Your task to perform on an android device: snooze an email in the gmail app Image 0: 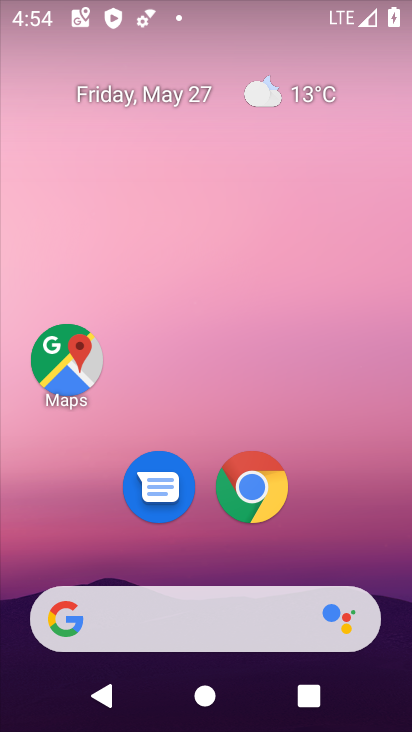
Step 0: drag from (367, 496) to (364, 117)
Your task to perform on an android device: snooze an email in the gmail app Image 1: 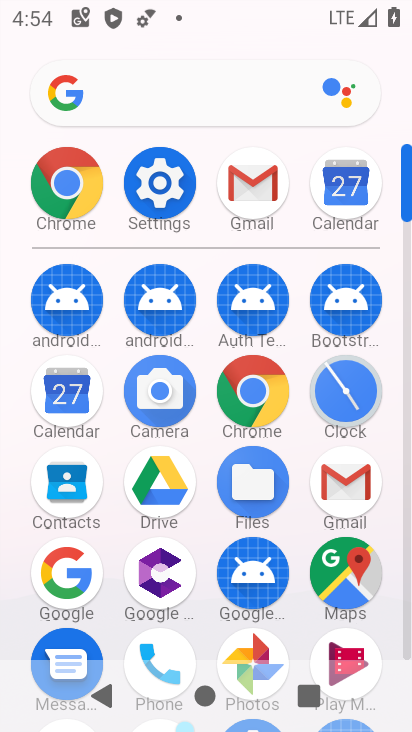
Step 1: click (236, 188)
Your task to perform on an android device: snooze an email in the gmail app Image 2: 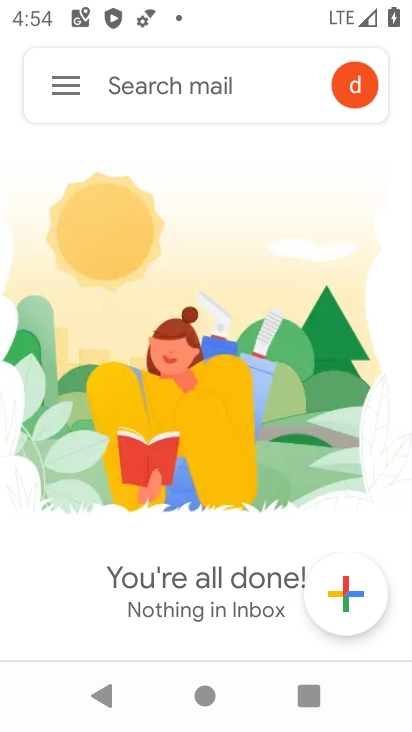
Step 2: click (63, 84)
Your task to perform on an android device: snooze an email in the gmail app Image 3: 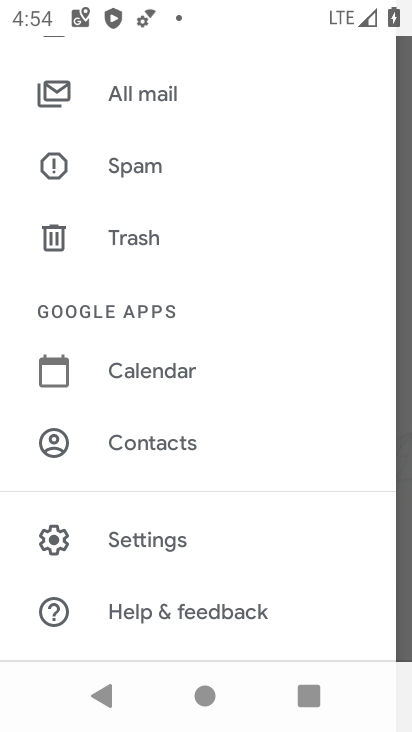
Step 3: drag from (189, 244) to (223, 590)
Your task to perform on an android device: snooze an email in the gmail app Image 4: 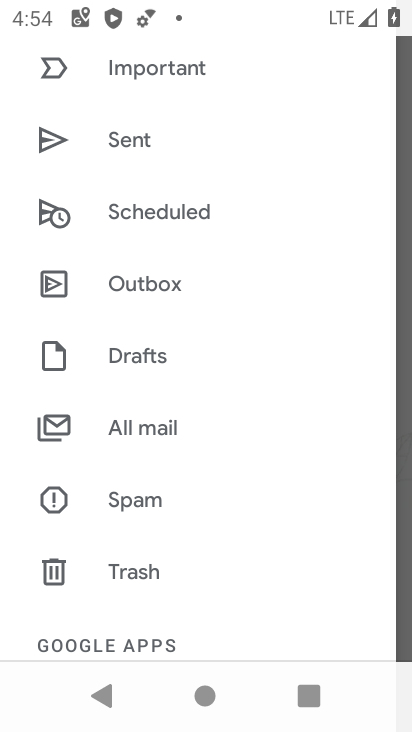
Step 4: drag from (183, 320) to (181, 581)
Your task to perform on an android device: snooze an email in the gmail app Image 5: 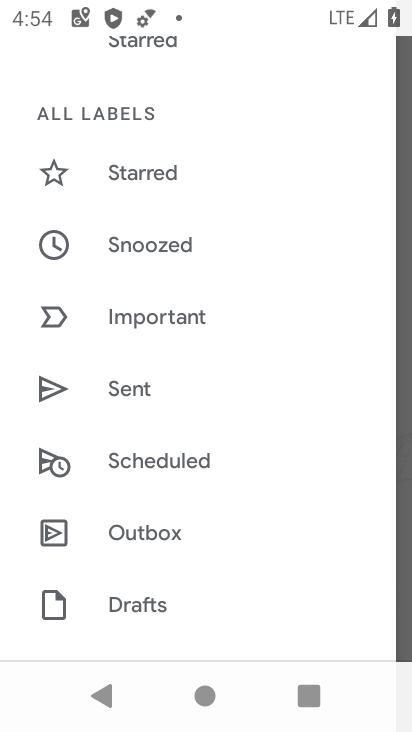
Step 5: drag from (152, 588) to (221, 299)
Your task to perform on an android device: snooze an email in the gmail app Image 6: 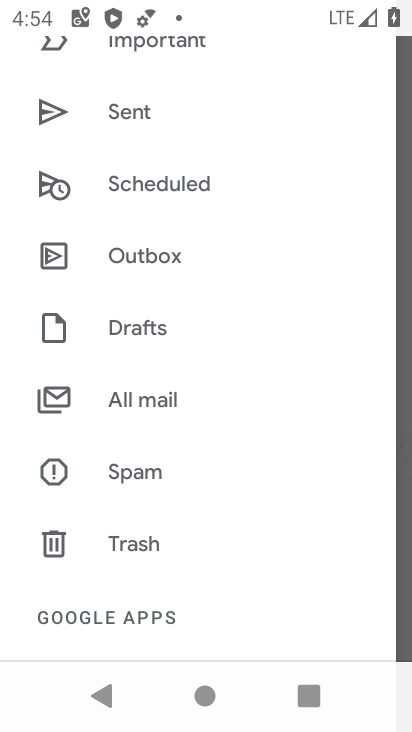
Step 6: click (160, 397)
Your task to perform on an android device: snooze an email in the gmail app Image 7: 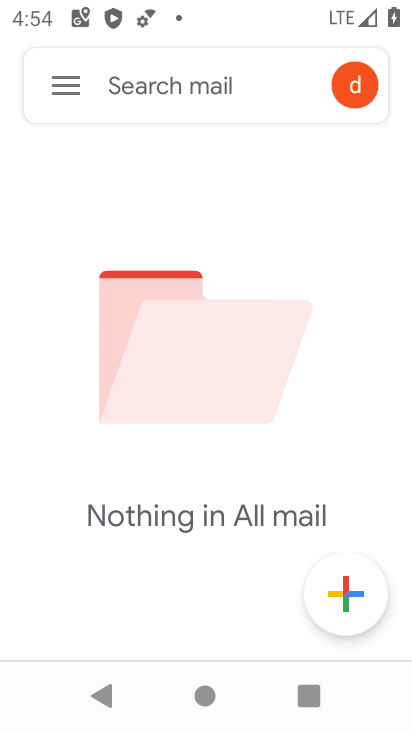
Step 7: task complete